Your task to perform on an android device: What's on my calendar today? Image 0: 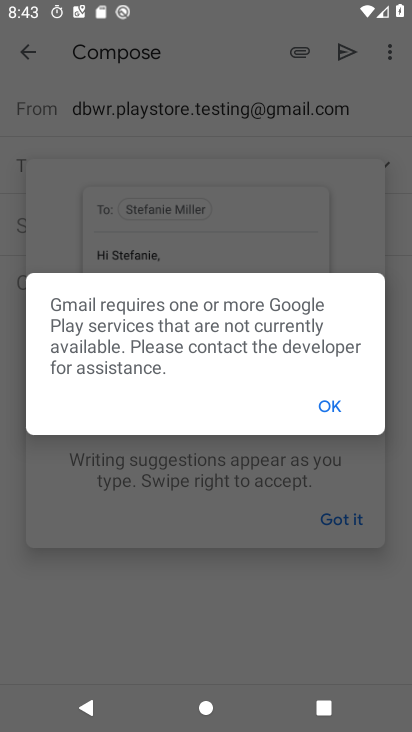
Step 0: press home button
Your task to perform on an android device: What's on my calendar today? Image 1: 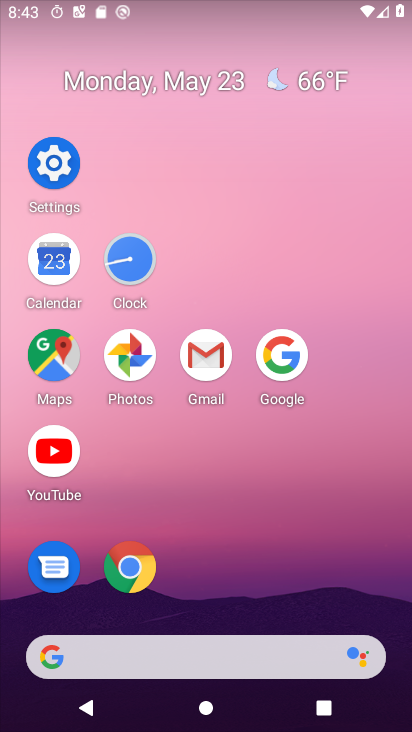
Step 1: click (41, 279)
Your task to perform on an android device: What's on my calendar today? Image 2: 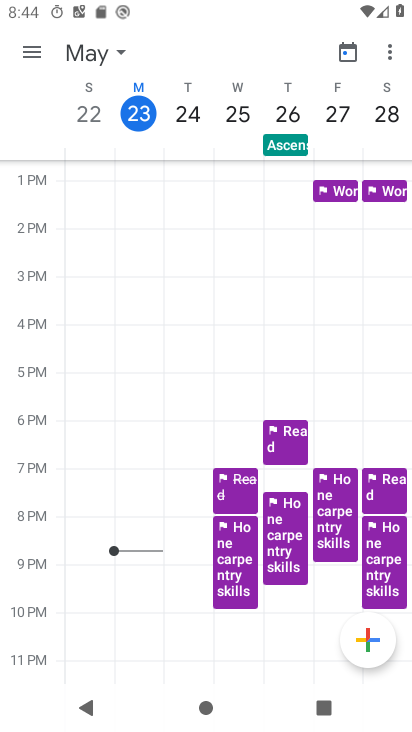
Step 2: click (180, 123)
Your task to perform on an android device: What's on my calendar today? Image 3: 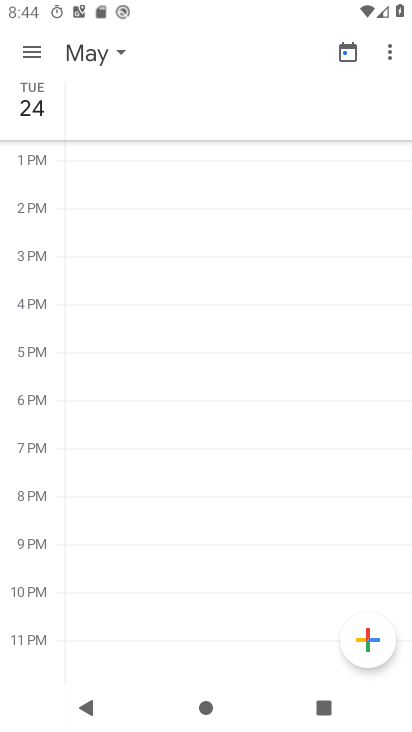
Step 3: task complete